Your task to perform on an android device: When is my next appointment? Image 0: 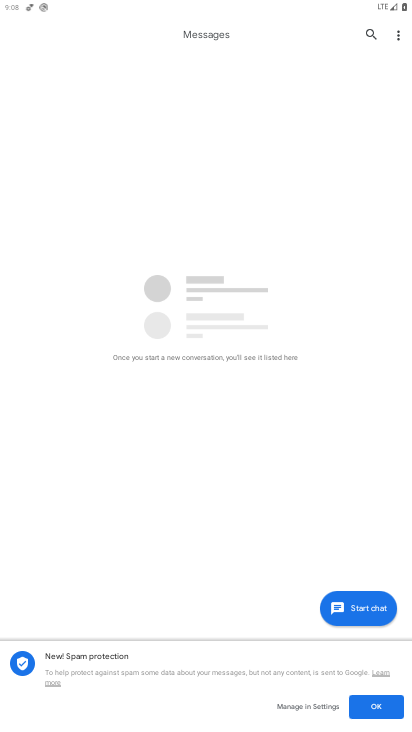
Step 0: press home button
Your task to perform on an android device: When is my next appointment? Image 1: 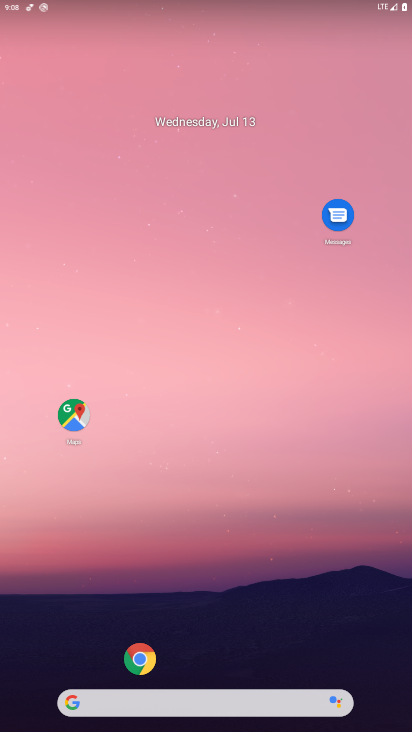
Step 1: drag from (110, 353) to (143, 169)
Your task to perform on an android device: When is my next appointment? Image 2: 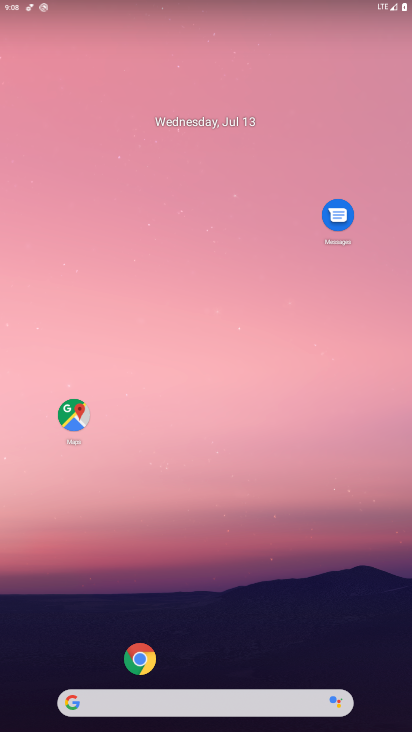
Step 2: drag from (161, 263) to (279, 0)
Your task to perform on an android device: When is my next appointment? Image 3: 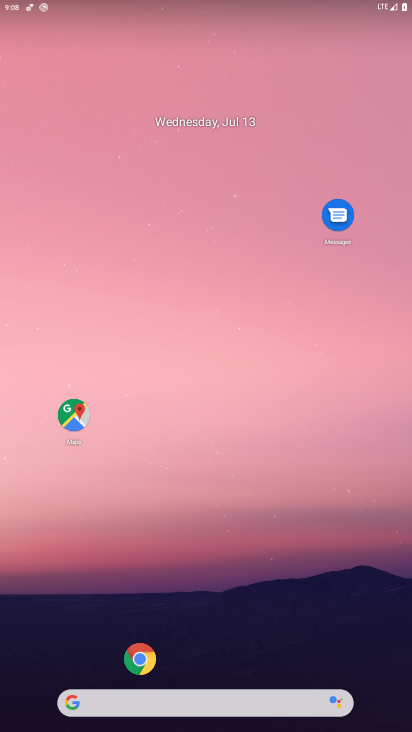
Step 3: drag from (57, 667) to (179, 125)
Your task to perform on an android device: When is my next appointment? Image 4: 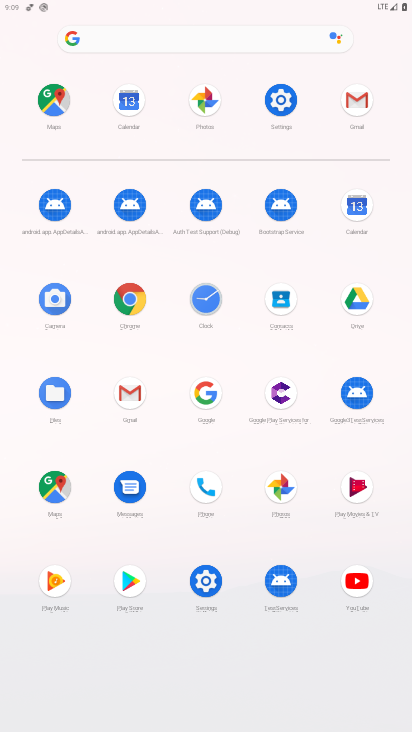
Step 4: click (348, 203)
Your task to perform on an android device: When is my next appointment? Image 5: 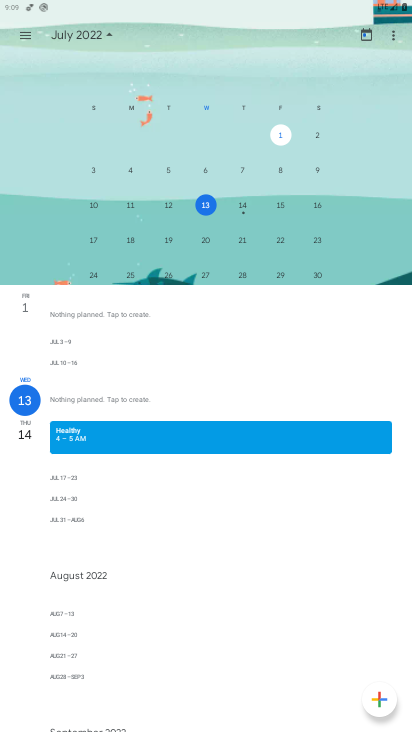
Step 5: task complete